Your task to perform on an android device: Go to Yahoo.com Image 0: 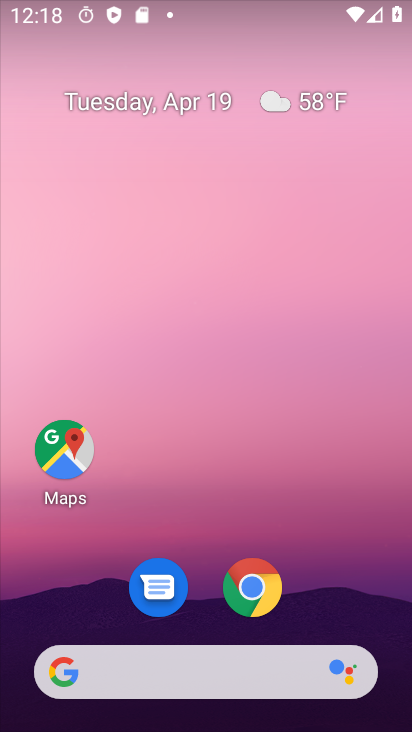
Step 0: drag from (382, 533) to (364, 94)
Your task to perform on an android device: Go to Yahoo.com Image 1: 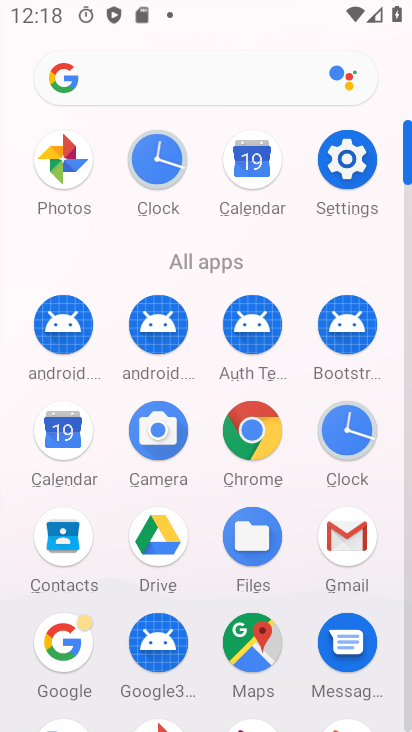
Step 1: click (251, 451)
Your task to perform on an android device: Go to Yahoo.com Image 2: 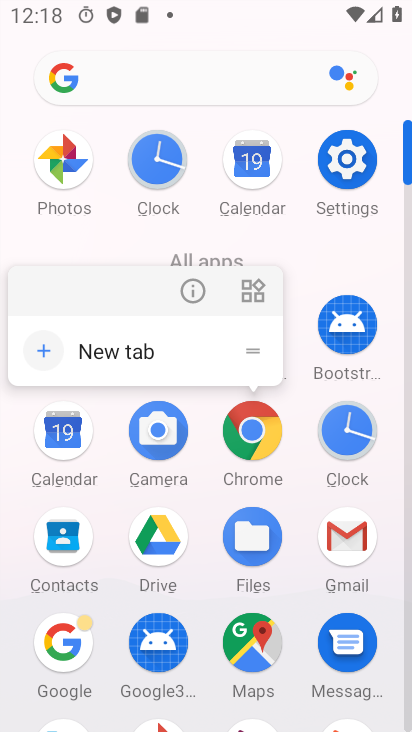
Step 2: click (251, 451)
Your task to perform on an android device: Go to Yahoo.com Image 3: 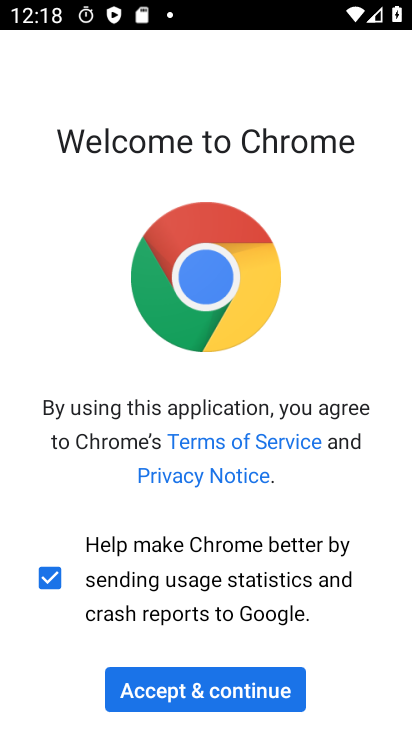
Step 3: click (237, 681)
Your task to perform on an android device: Go to Yahoo.com Image 4: 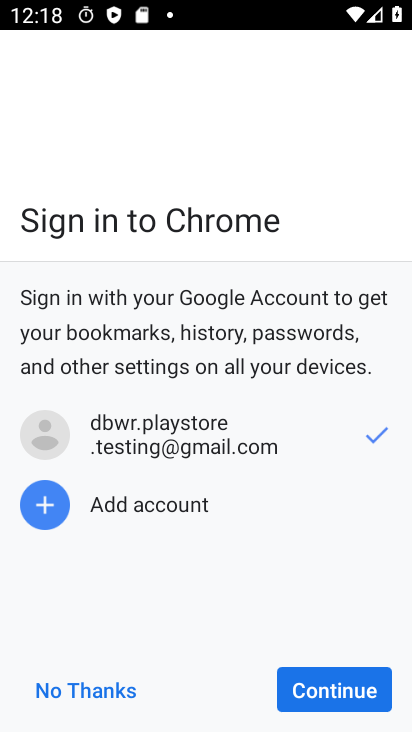
Step 4: click (342, 700)
Your task to perform on an android device: Go to Yahoo.com Image 5: 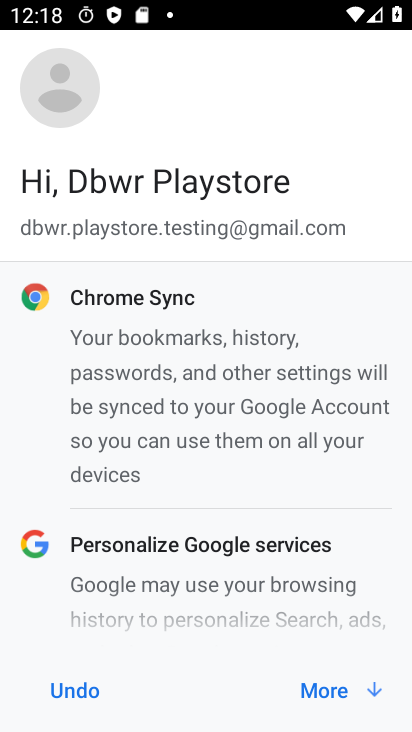
Step 5: click (342, 694)
Your task to perform on an android device: Go to Yahoo.com Image 6: 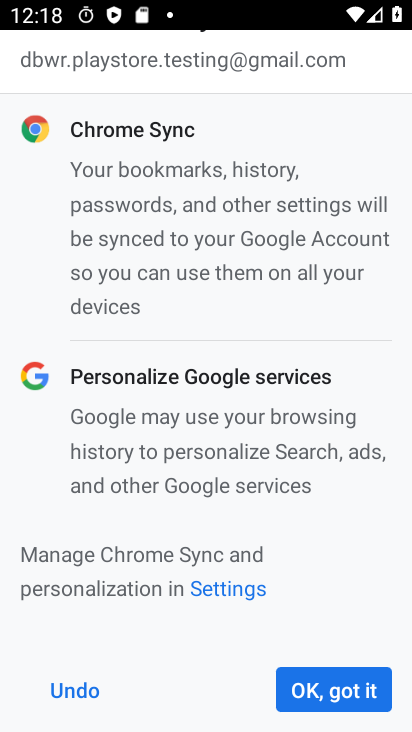
Step 6: click (342, 694)
Your task to perform on an android device: Go to Yahoo.com Image 7: 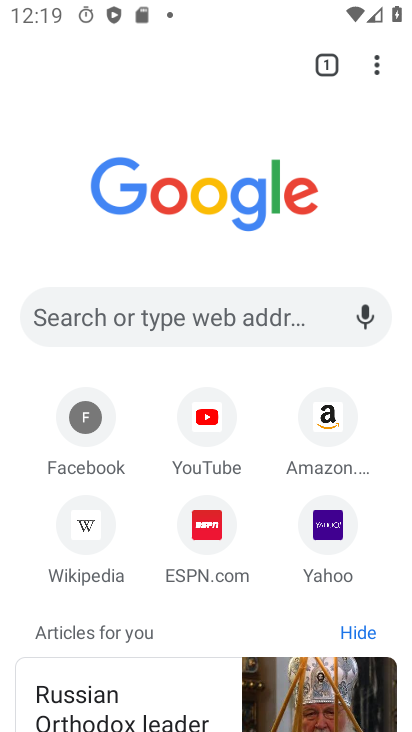
Step 7: click (336, 528)
Your task to perform on an android device: Go to Yahoo.com Image 8: 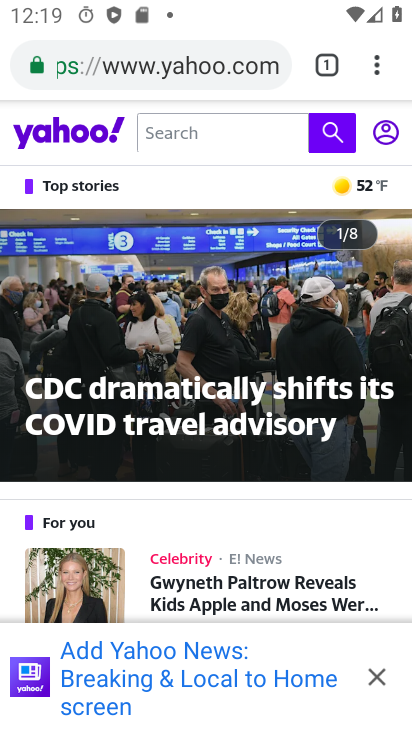
Step 8: task complete